Your task to perform on an android device: Show me the alarms in the clock app Image 0: 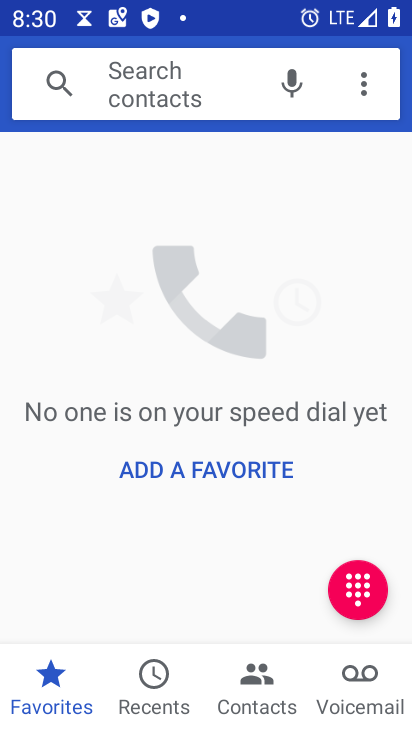
Step 0: press back button
Your task to perform on an android device: Show me the alarms in the clock app Image 1: 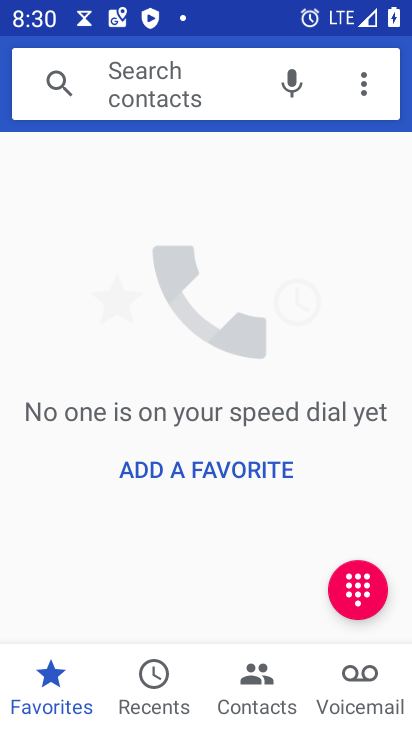
Step 1: press back button
Your task to perform on an android device: Show me the alarms in the clock app Image 2: 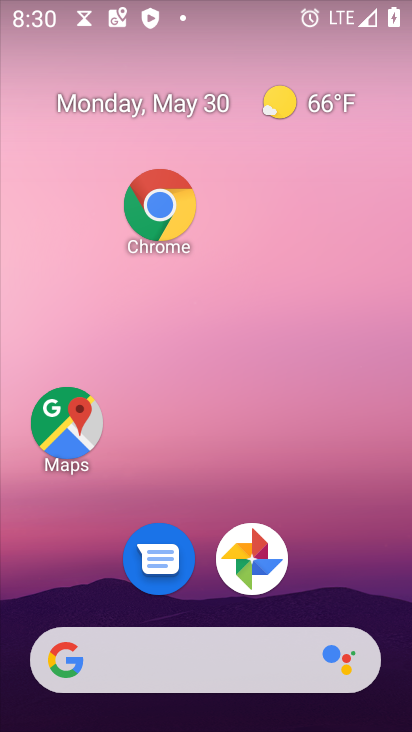
Step 2: drag from (255, 581) to (216, 134)
Your task to perform on an android device: Show me the alarms in the clock app Image 3: 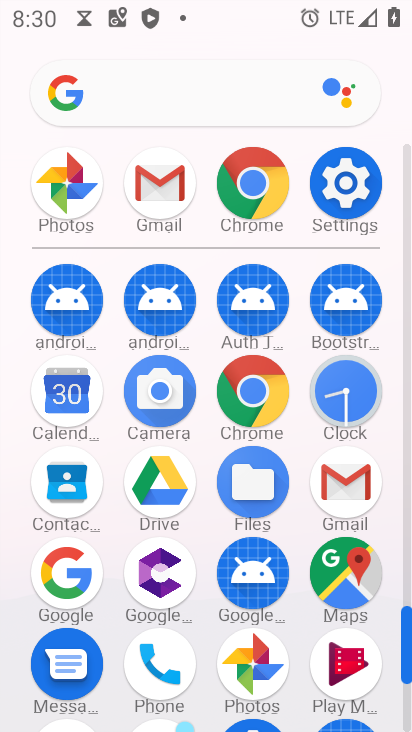
Step 3: click (354, 380)
Your task to perform on an android device: Show me the alarms in the clock app Image 4: 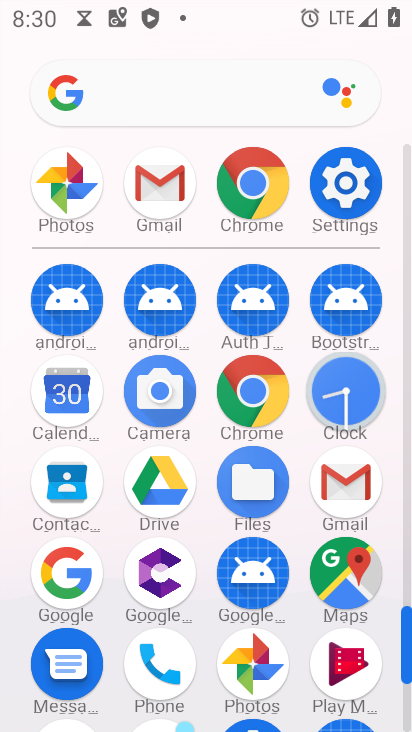
Step 4: click (355, 385)
Your task to perform on an android device: Show me the alarms in the clock app Image 5: 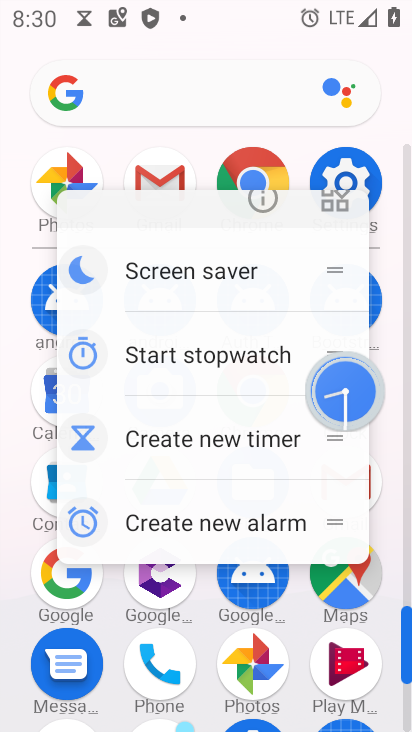
Step 5: click (356, 384)
Your task to perform on an android device: Show me the alarms in the clock app Image 6: 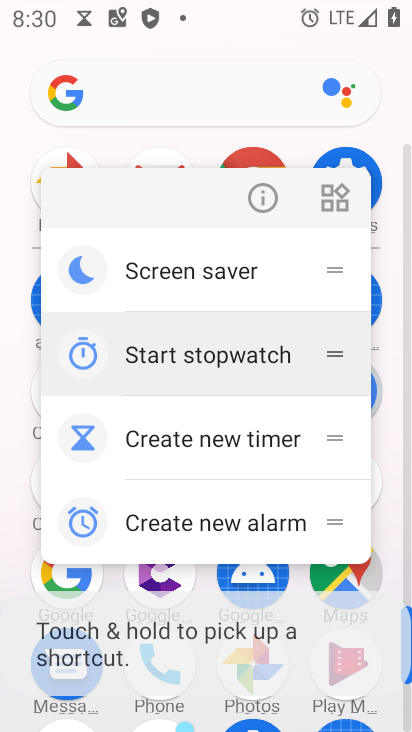
Step 6: click (354, 384)
Your task to perform on an android device: Show me the alarms in the clock app Image 7: 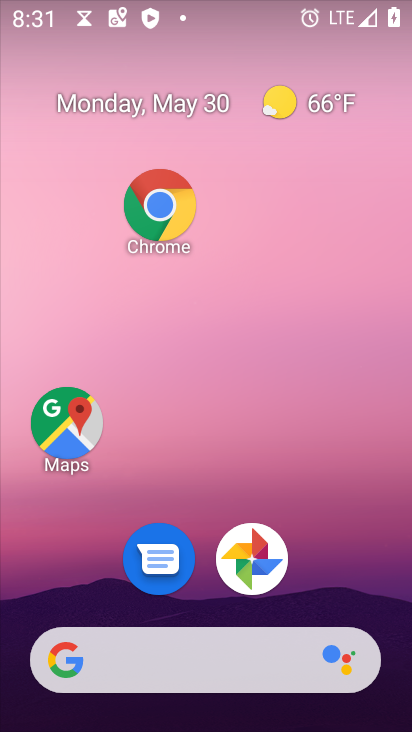
Step 7: drag from (274, 563) to (235, 244)
Your task to perform on an android device: Show me the alarms in the clock app Image 8: 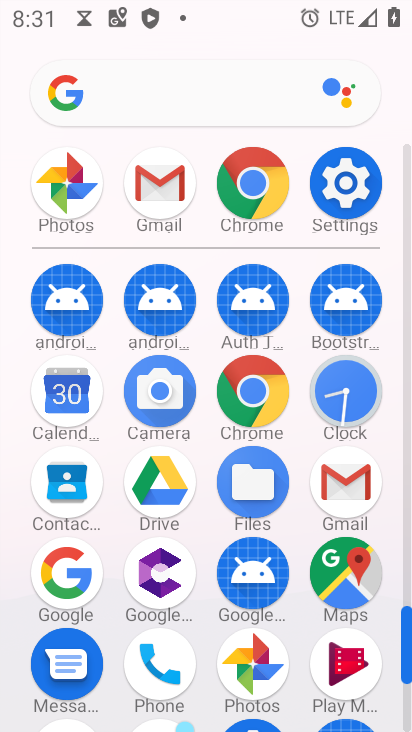
Step 8: click (365, 392)
Your task to perform on an android device: Show me the alarms in the clock app Image 9: 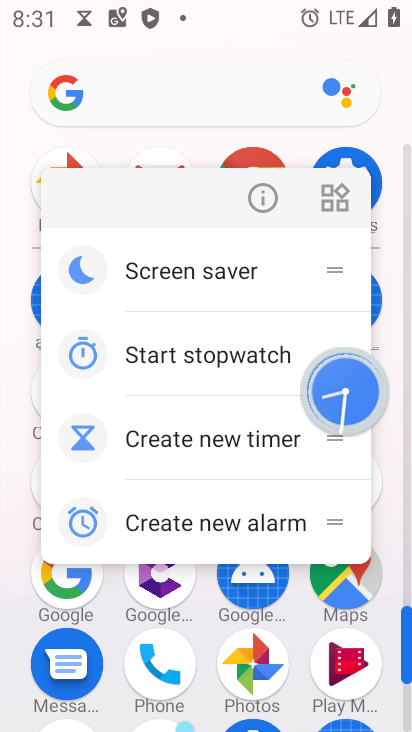
Step 9: click (364, 392)
Your task to perform on an android device: Show me the alarms in the clock app Image 10: 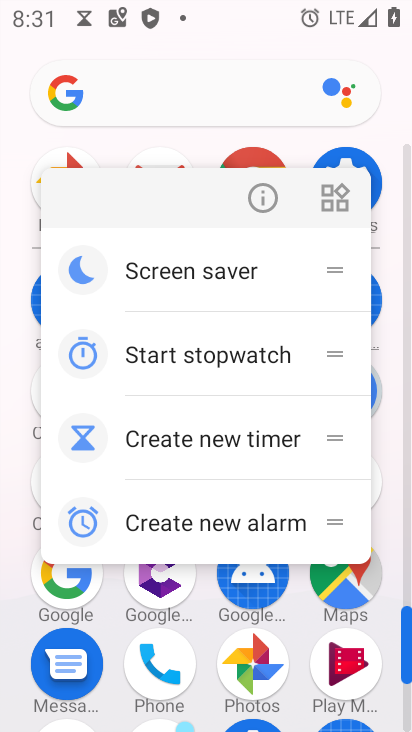
Step 10: click (387, 432)
Your task to perform on an android device: Show me the alarms in the clock app Image 11: 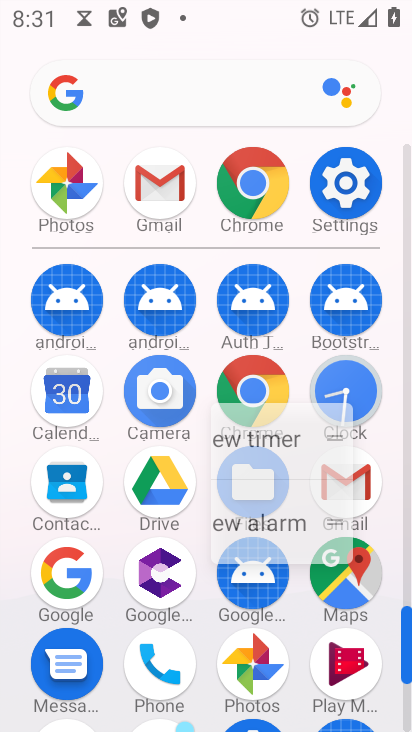
Step 11: click (387, 433)
Your task to perform on an android device: Show me the alarms in the clock app Image 12: 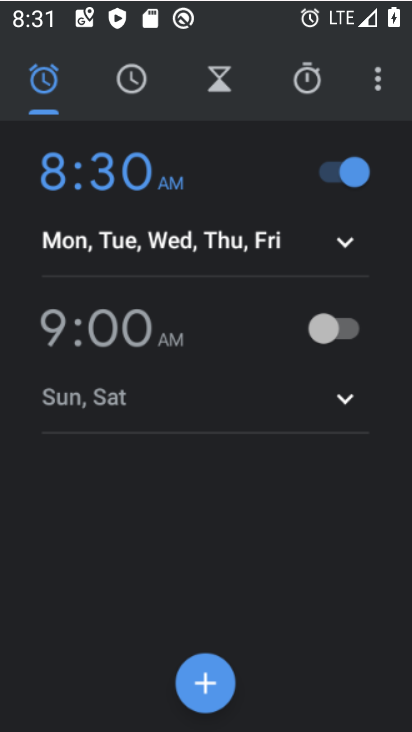
Step 12: click (387, 433)
Your task to perform on an android device: Show me the alarms in the clock app Image 13: 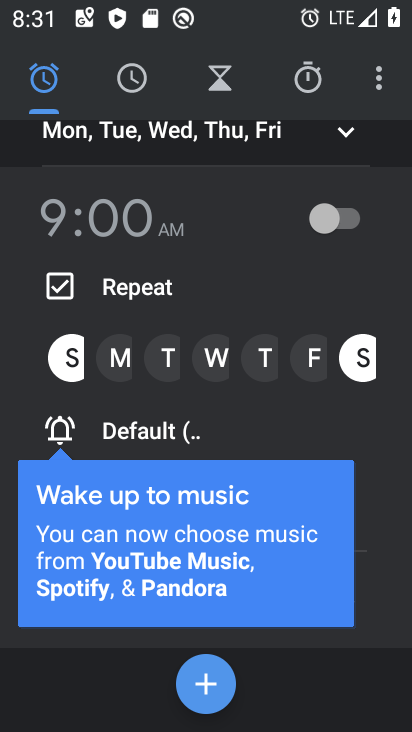
Step 13: click (38, 95)
Your task to perform on an android device: Show me the alarms in the clock app Image 14: 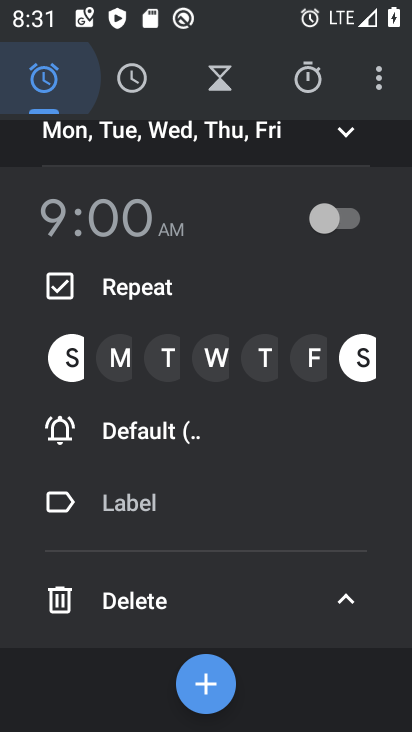
Step 14: click (38, 94)
Your task to perform on an android device: Show me the alarms in the clock app Image 15: 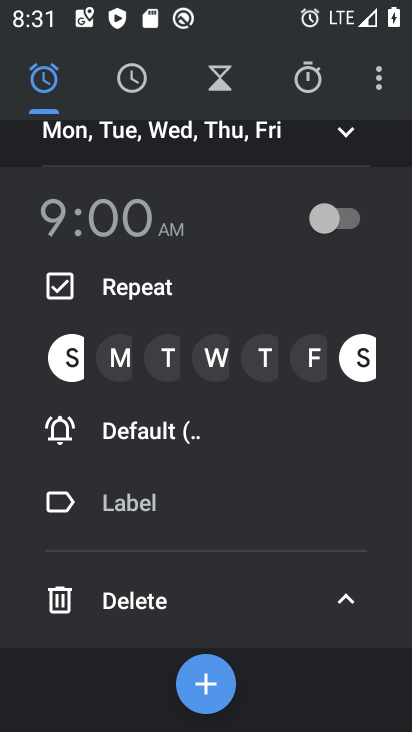
Step 15: click (321, 208)
Your task to perform on an android device: Show me the alarms in the clock app Image 16: 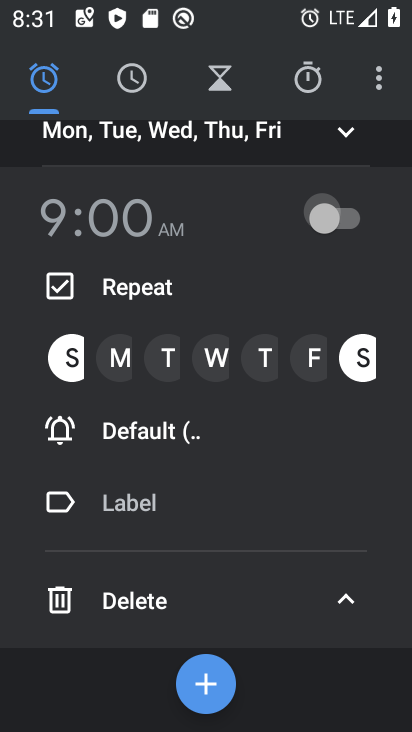
Step 16: click (321, 208)
Your task to perform on an android device: Show me the alarms in the clock app Image 17: 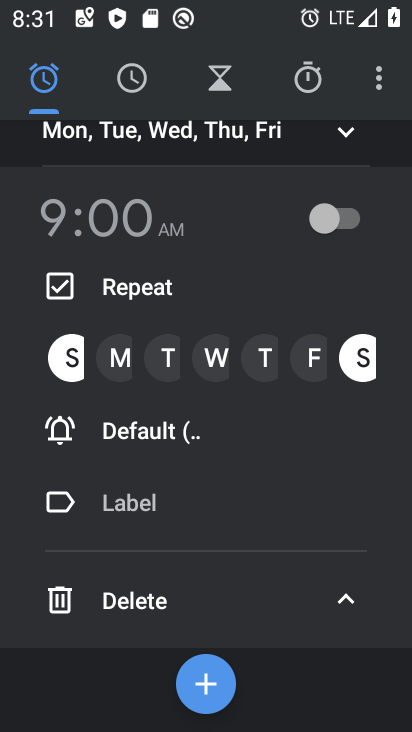
Step 17: click (334, 217)
Your task to perform on an android device: Show me the alarms in the clock app Image 18: 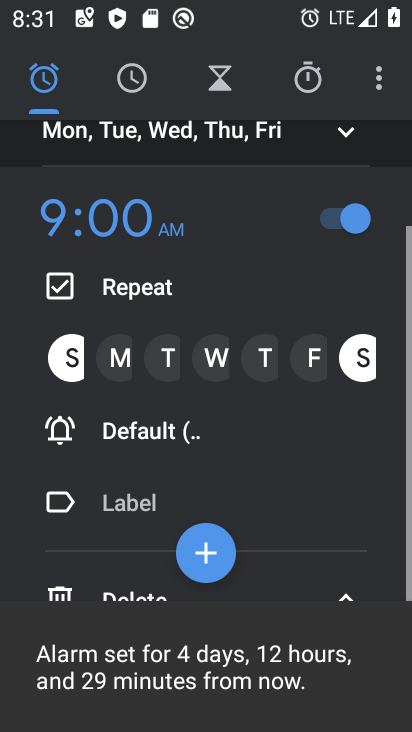
Step 18: task complete